Your task to perform on an android device: add a contact Image 0: 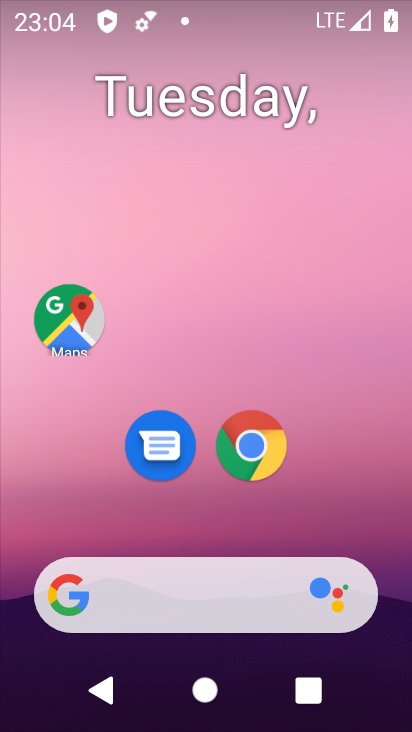
Step 0: drag from (245, 529) to (285, 22)
Your task to perform on an android device: add a contact Image 1: 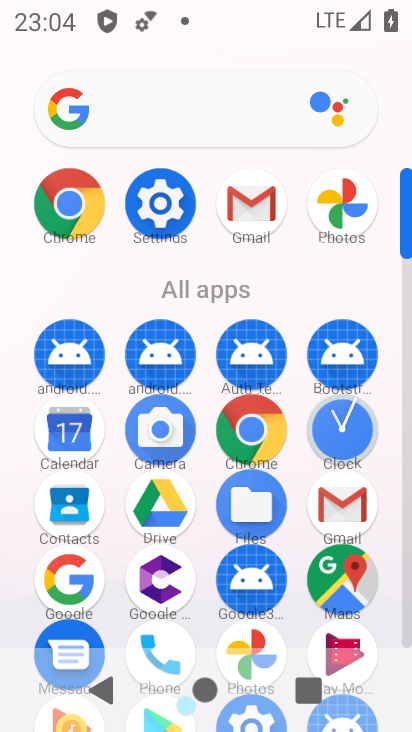
Step 1: click (66, 510)
Your task to perform on an android device: add a contact Image 2: 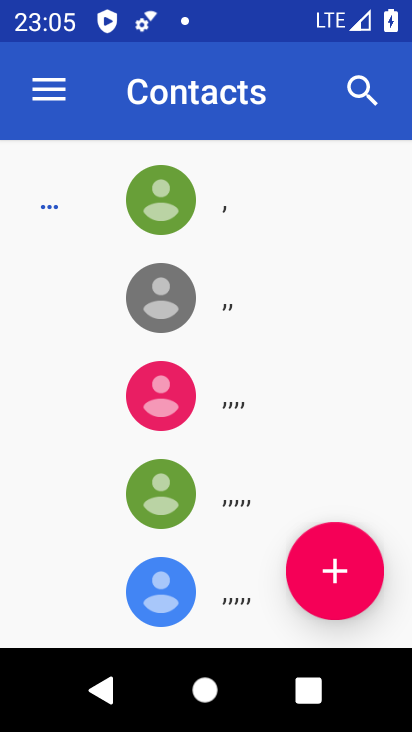
Step 2: click (333, 568)
Your task to perform on an android device: add a contact Image 3: 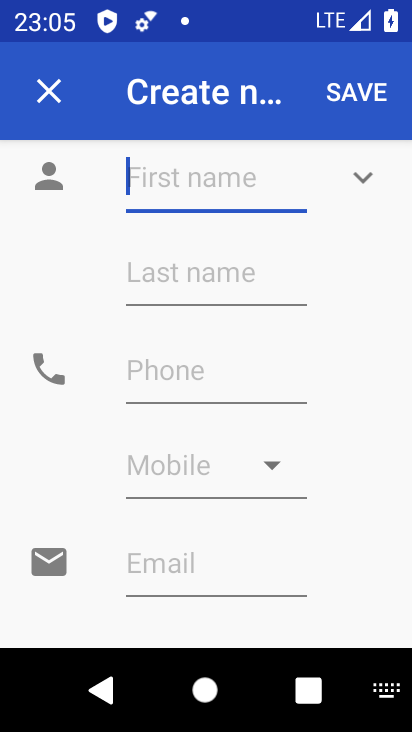
Step 3: type "nmjkkmnjkm"
Your task to perform on an android device: add a contact Image 4: 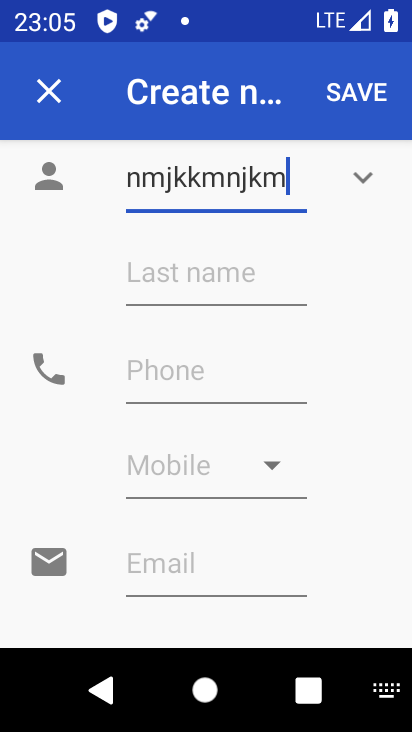
Step 4: click (162, 374)
Your task to perform on an android device: add a contact Image 5: 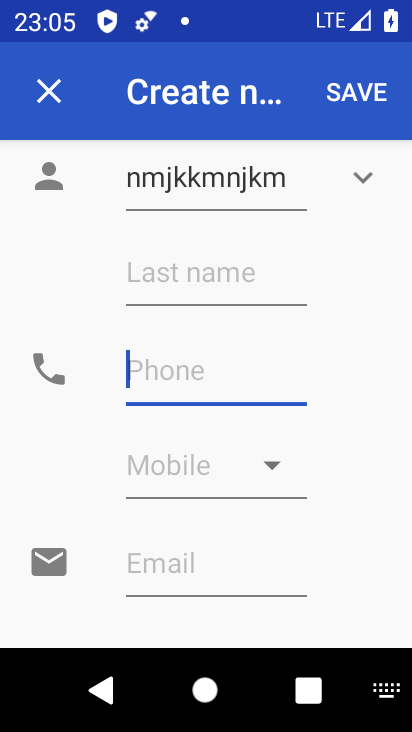
Step 5: type "98989898989"
Your task to perform on an android device: add a contact Image 6: 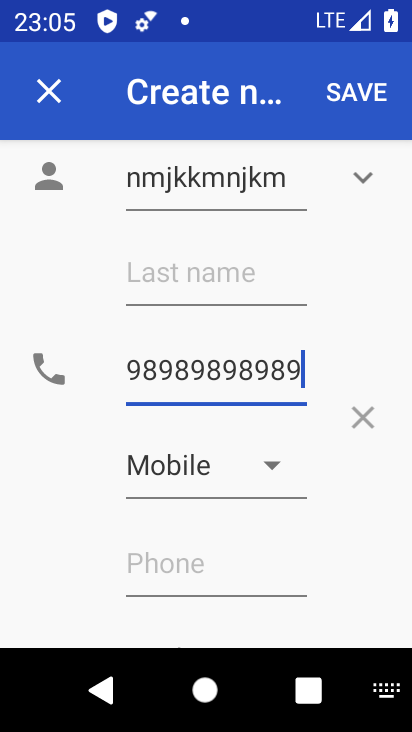
Step 6: click (351, 82)
Your task to perform on an android device: add a contact Image 7: 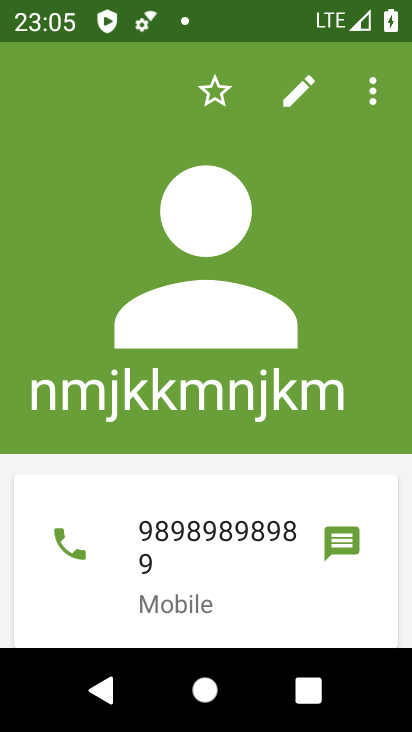
Step 7: task complete